Your task to perform on an android device: delete location history Image 0: 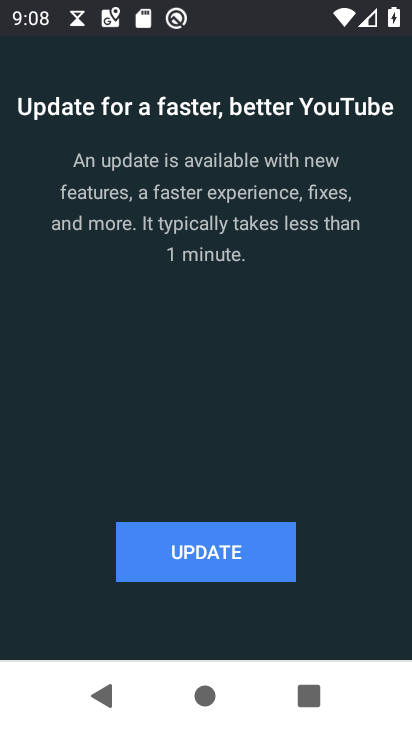
Step 0: press back button
Your task to perform on an android device: delete location history Image 1: 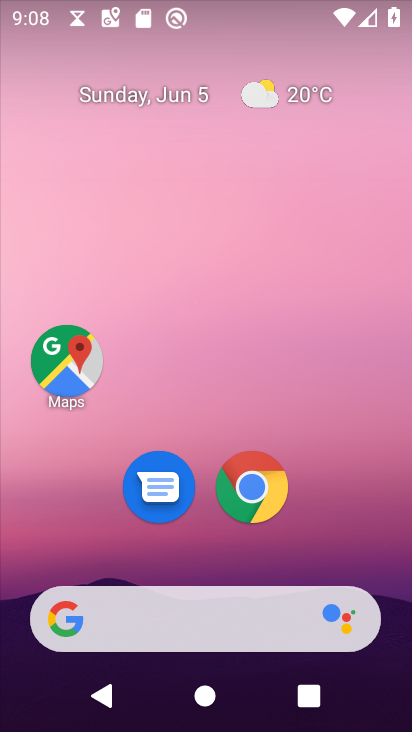
Step 1: drag from (204, 513) to (226, 264)
Your task to perform on an android device: delete location history Image 2: 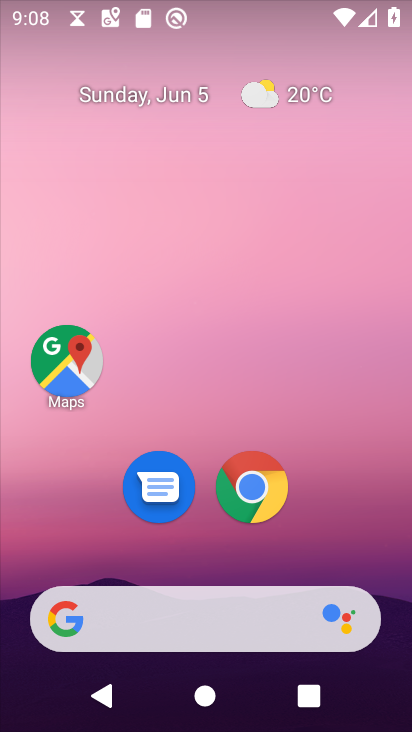
Step 2: click (44, 353)
Your task to perform on an android device: delete location history Image 3: 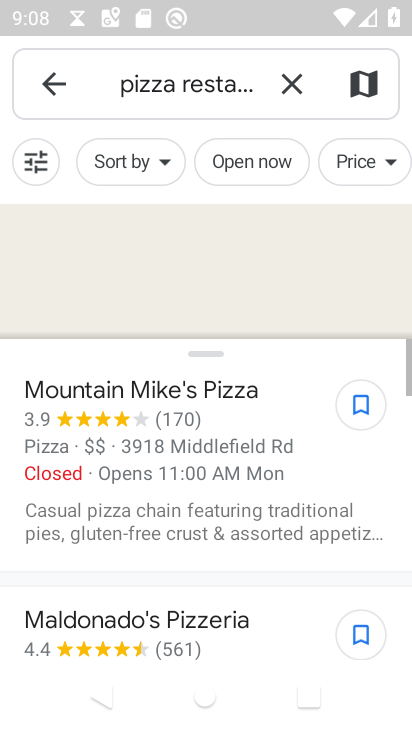
Step 3: click (43, 88)
Your task to perform on an android device: delete location history Image 4: 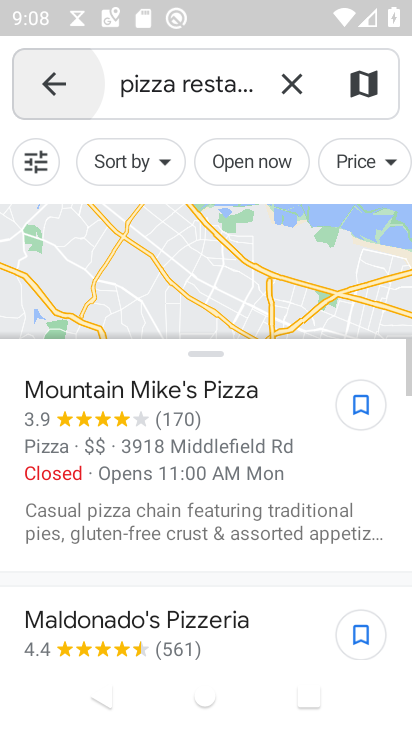
Step 4: click (284, 76)
Your task to perform on an android device: delete location history Image 5: 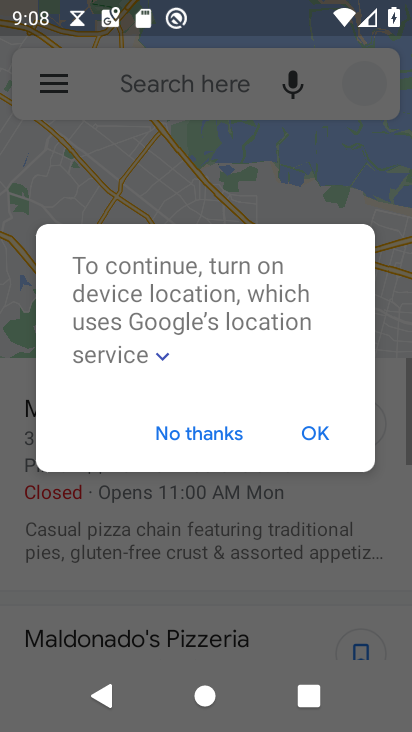
Step 5: click (305, 427)
Your task to perform on an android device: delete location history Image 6: 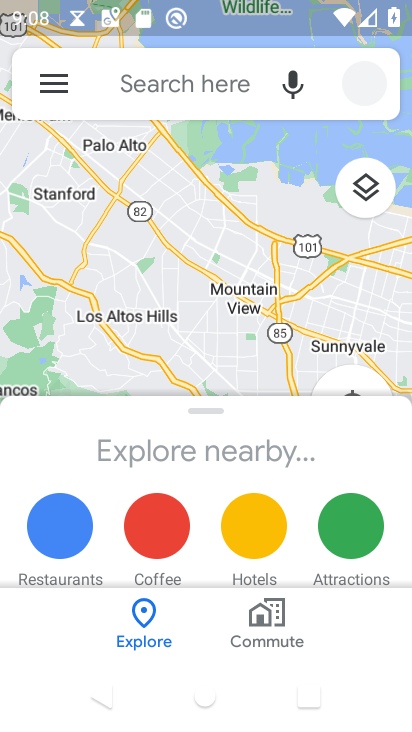
Step 6: click (55, 80)
Your task to perform on an android device: delete location history Image 7: 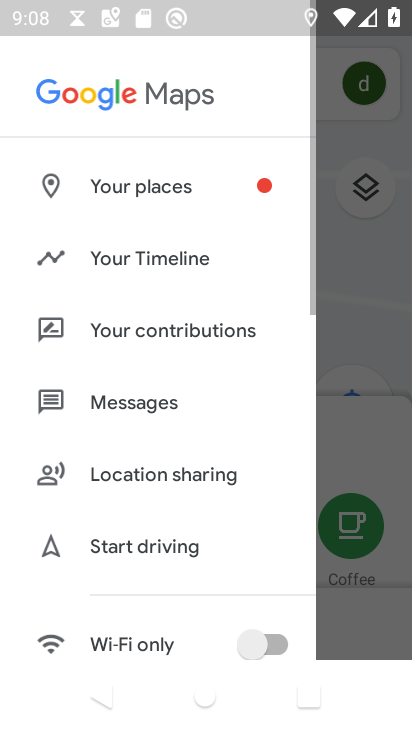
Step 7: click (125, 244)
Your task to perform on an android device: delete location history Image 8: 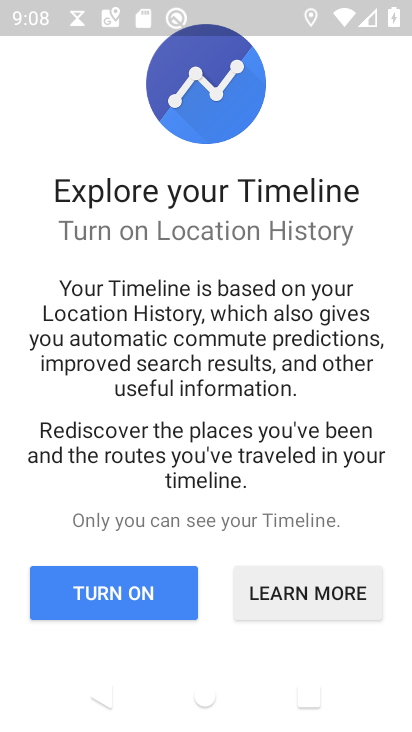
Step 8: click (261, 615)
Your task to perform on an android device: delete location history Image 9: 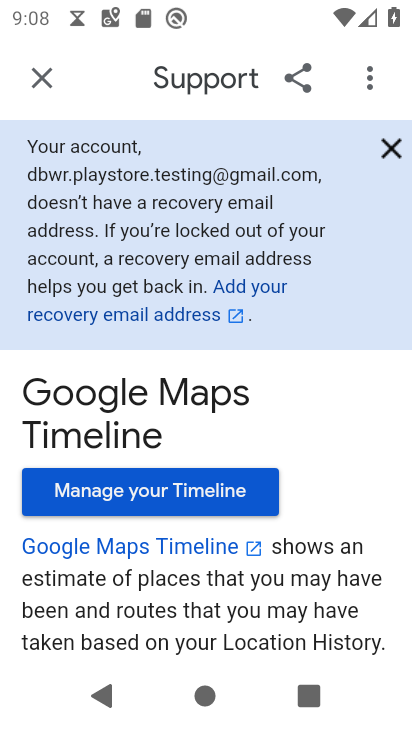
Step 9: press back button
Your task to perform on an android device: delete location history Image 10: 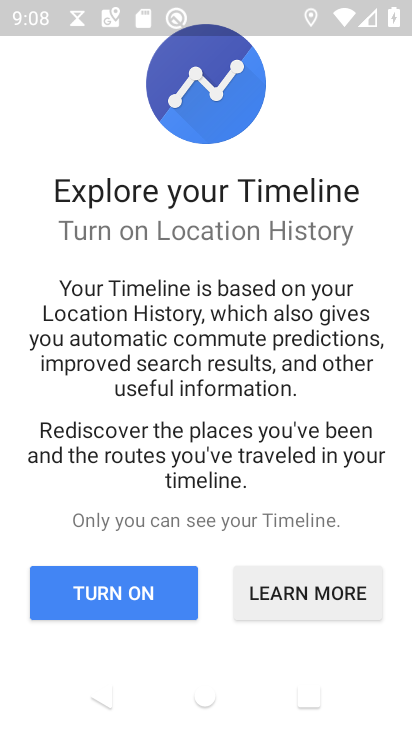
Step 10: click (163, 602)
Your task to perform on an android device: delete location history Image 11: 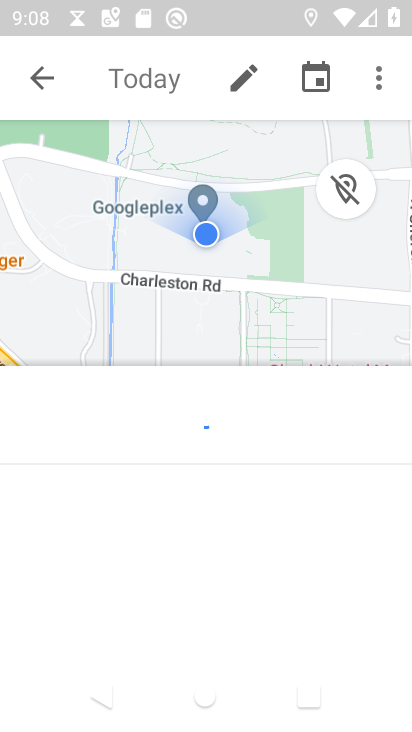
Step 11: click (366, 71)
Your task to perform on an android device: delete location history Image 12: 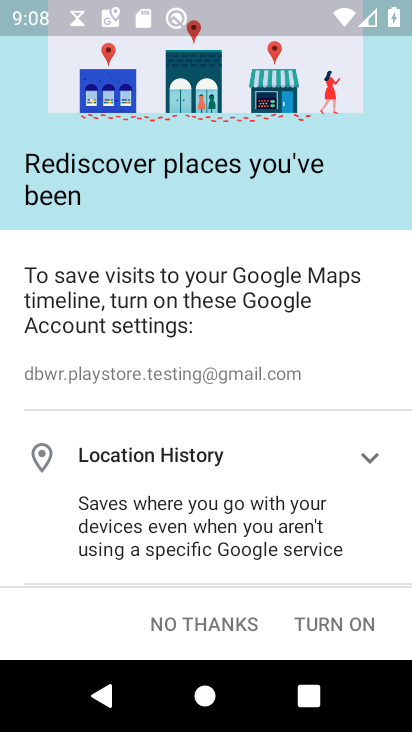
Step 12: click (239, 622)
Your task to perform on an android device: delete location history Image 13: 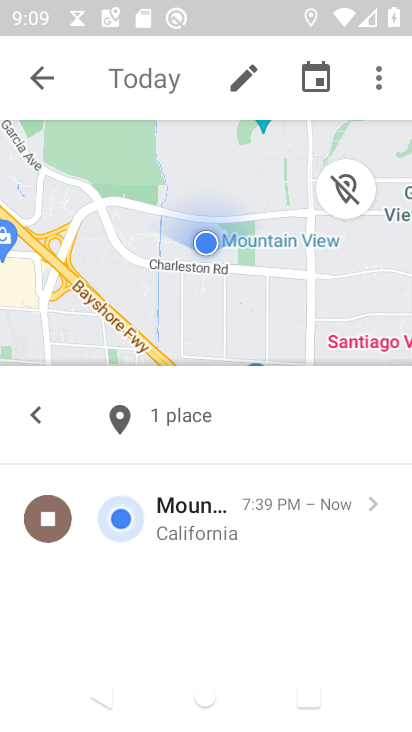
Step 13: click (220, 513)
Your task to perform on an android device: delete location history Image 14: 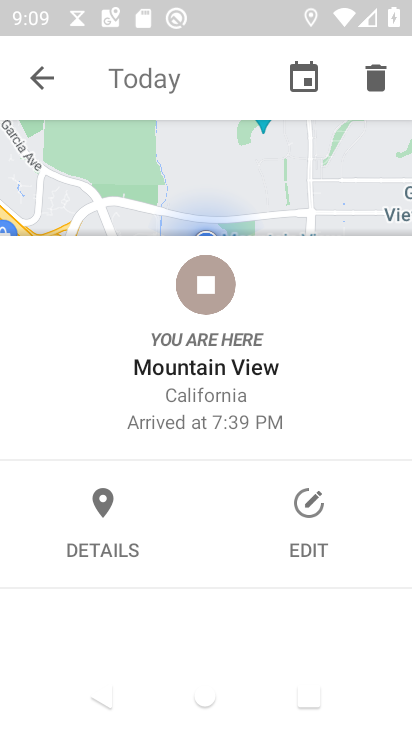
Step 14: click (379, 66)
Your task to perform on an android device: delete location history Image 15: 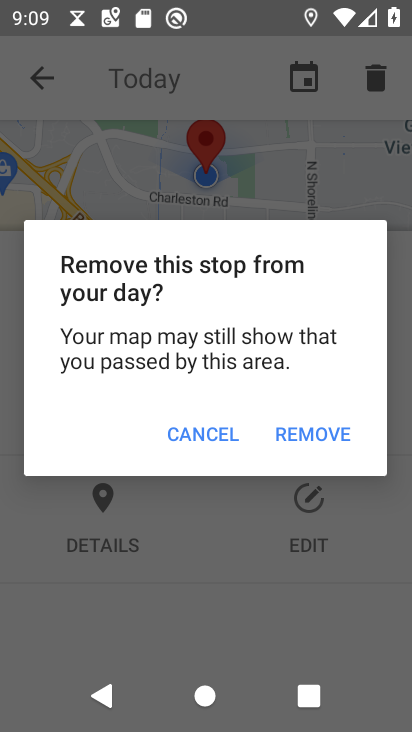
Step 15: click (71, 86)
Your task to perform on an android device: delete location history Image 16: 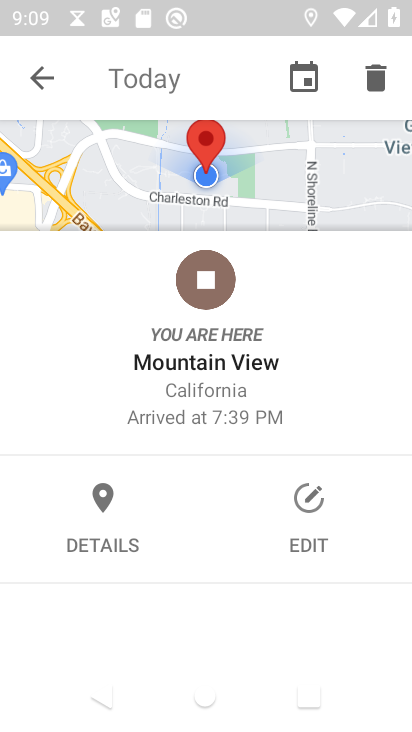
Step 16: click (209, 421)
Your task to perform on an android device: delete location history Image 17: 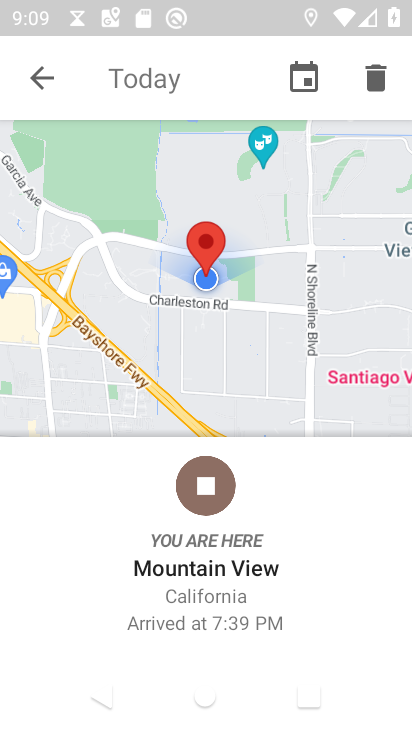
Step 17: click (51, 60)
Your task to perform on an android device: delete location history Image 18: 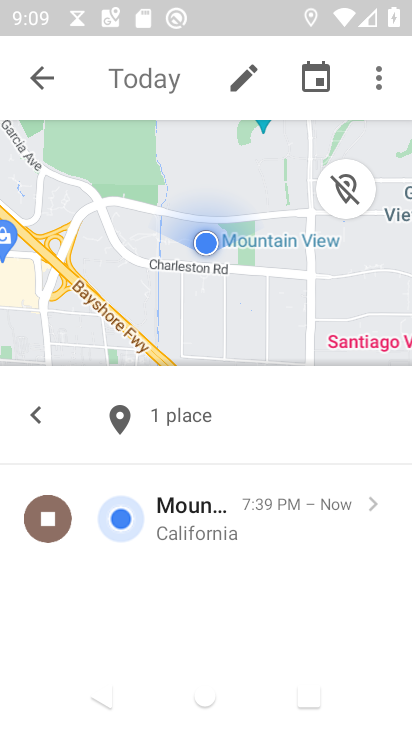
Step 18: click (358, 74)
Your task to perform on an android device: delete location history Image 19: 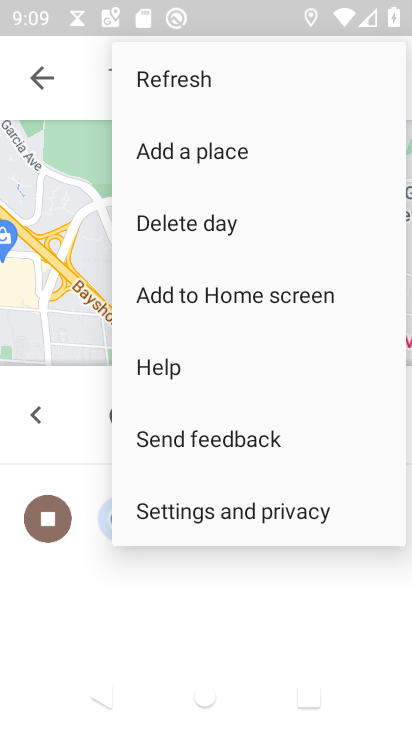
Step 19: click (222, 529)
Your task to perform on an android device: delete location history Image 20: 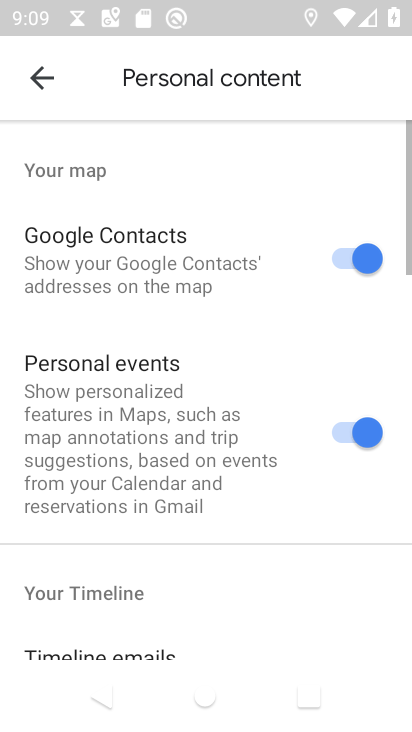
Step 20: drag from (203, 585) to (185, 179)
Your task to perform on an android device: delete location history Image 21: 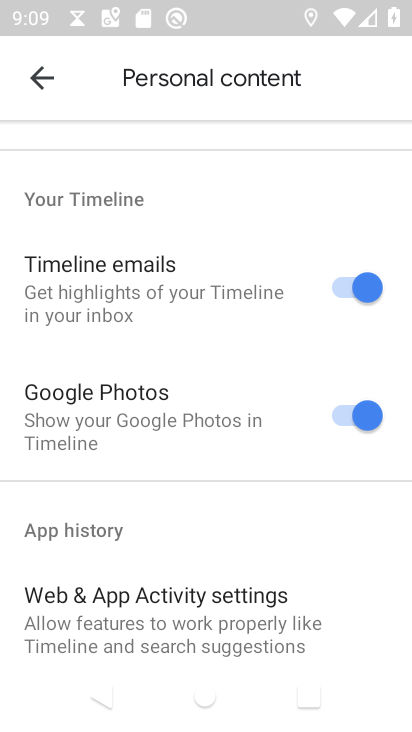
Step 21: drag from (138, 587) to (149, 211)
Your task to perform on an android device: delete location history Image 22: 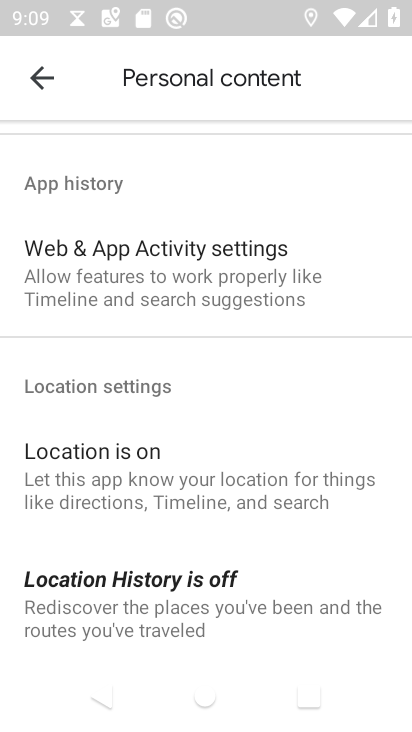
Step 22: drag from (153, 579) to (153, 259)
Your task to perform on an android device: delete location history Image 23: 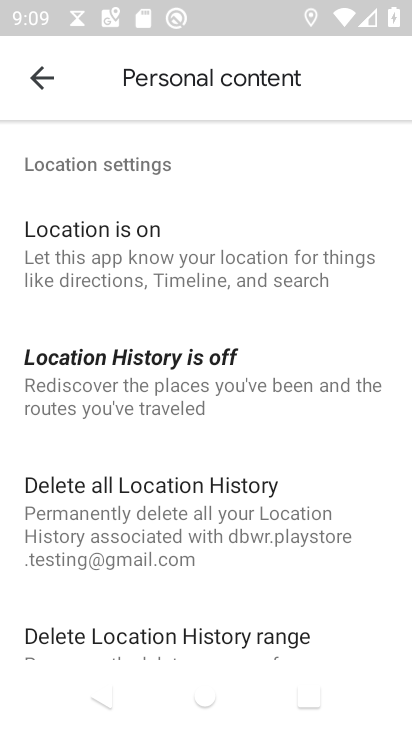
Step 23: click (135, 472)
Your task to perform on an android device: delete location history Image 24: 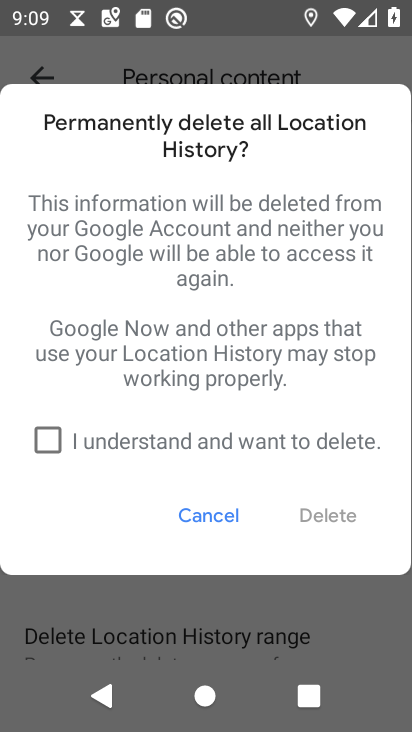
Step 24: click (70, 451)
Your task to perform on an android device: delete location history Image 25: 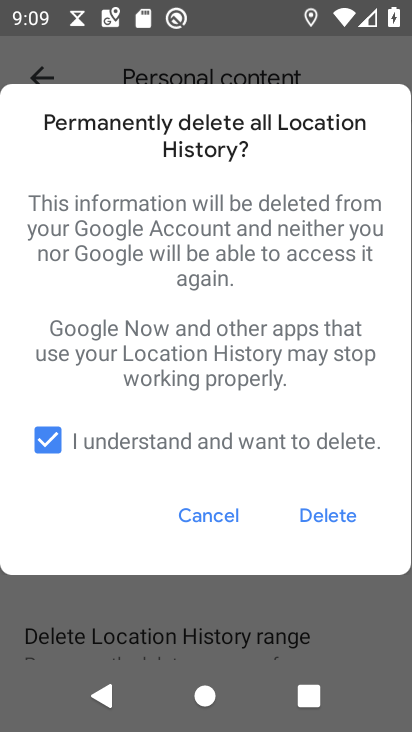
Step 25: click (323, 507)
Your task to perform on an android device: delete location history Image 26: 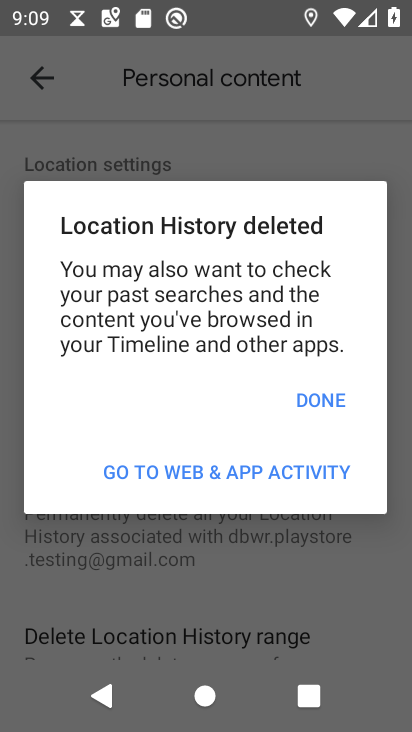
Step 26: click (300, 378)
Your task to perform on an android device: delete location history Image 27: 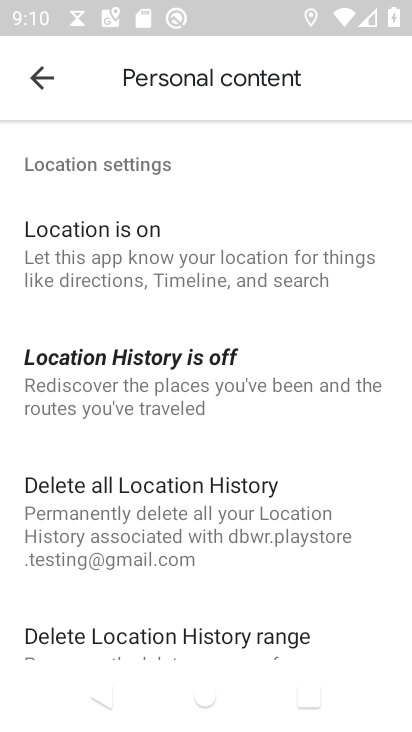
Step 27: task complete